Your task to perform on an android device: toggle notifications settings in the gmail app Image 0: 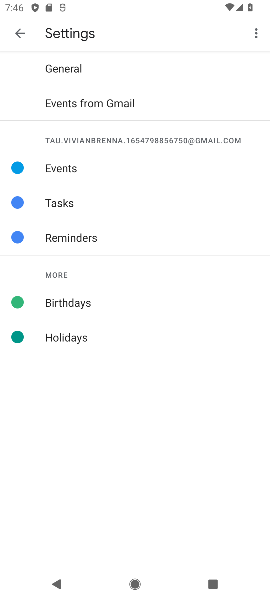
Step 0: press home button
Your task to perform on an android device: toggle notifications settings in the gmail app Image 1: 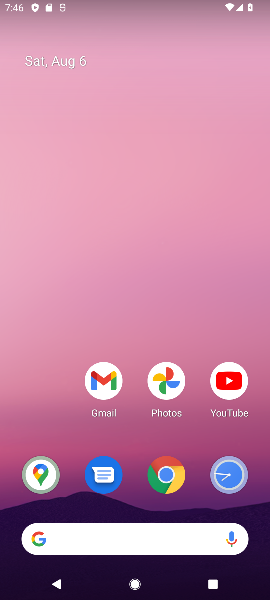
Step 1: click (134, 434)
Your task to perform on an android device: toggle notifications settings in the gmail app Image 2: 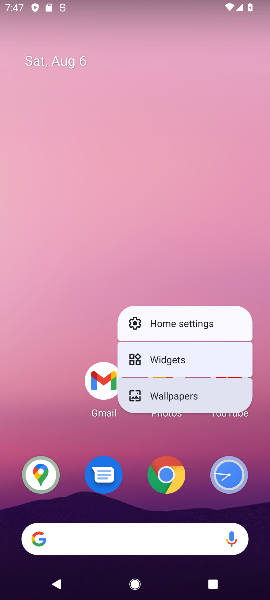
Step 2: click (22, 298)
Your task to perform on an android device: toggle notifications settings in the gmail app Image 3: 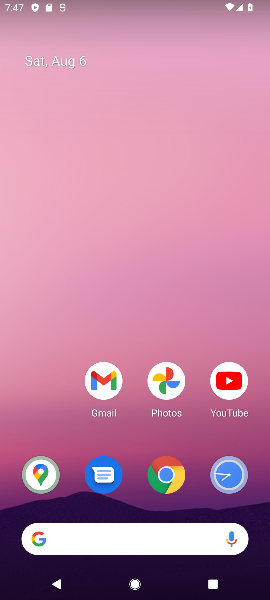
Step 3: click (93, 364)
Your task to perform on an android device: toggle notifications settings in the gmail app Image 4: 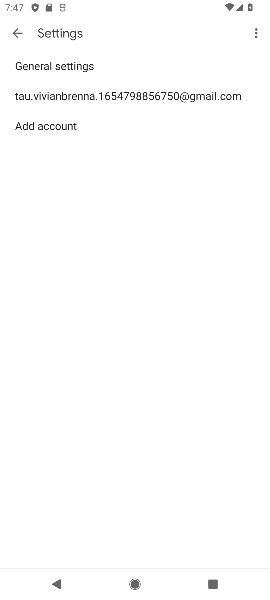
Step 4: click (82, 88)
Your task to perform on an android device: toggle notifications settings in the gmail app Image 5: 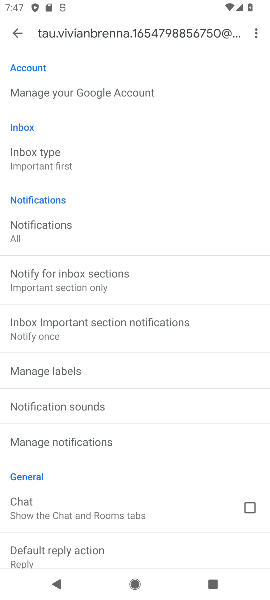
Step 5: click (124, 444)
Your task to perform on an android device: toggle notifications settings in the gmail app Image 6: 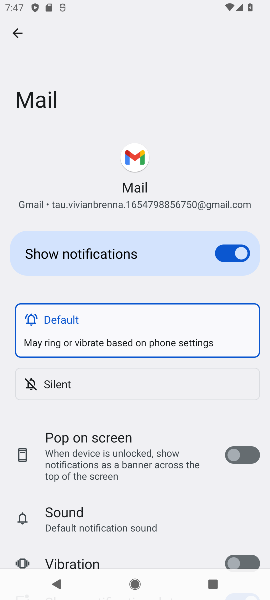
Step 6: click (236, 246)
Your task to perform on an android device: toggle notifications settings in the gmail app Image 7: 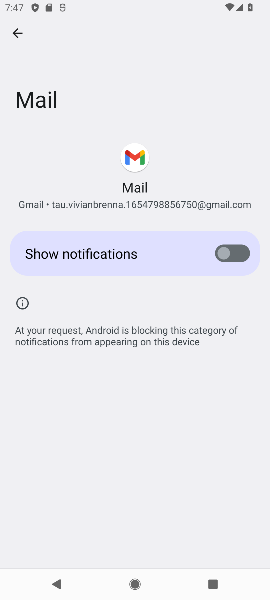
Step 7: task complete